Your task to perform on an android device: find snoozed emails in the gmail app Image 0: 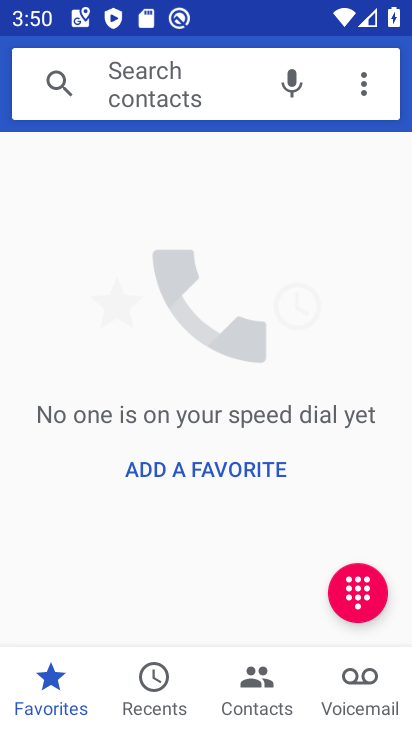
Step 0: press home button
Your task to perform on an android device: find snoozed emails in the gmail app Image 1: 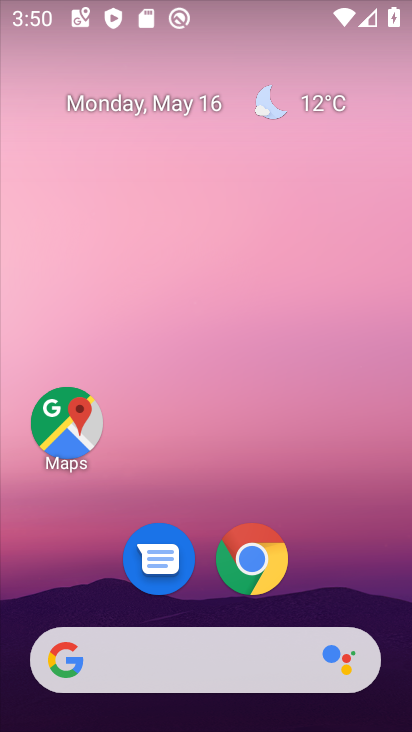
Step 1: drag from (378, 569) to (264, 245)
Your task to perform on an android device: find snoozed emails in the gmail app Image 2: 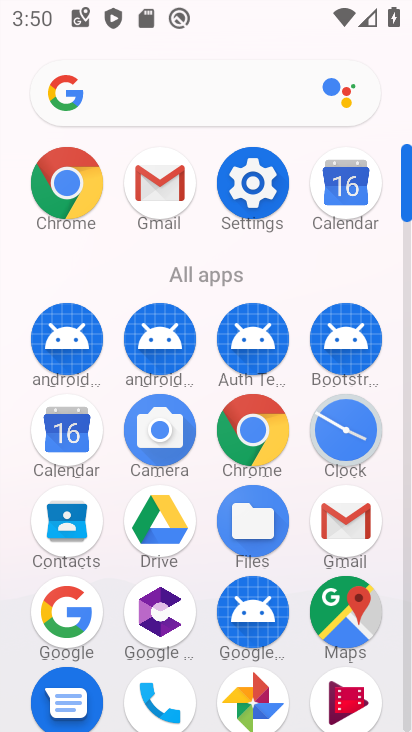
Step 2: click (327, 509)
Your task to perform on an android device: find snoozed emails in the gmail app Image 3: 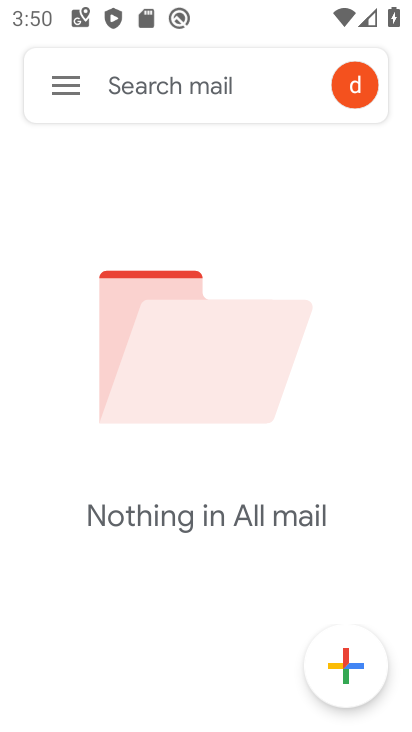
Step 3: click (59, 89)
Your task to perform on an android device: find snoozed emails in the gmail app Image 4: 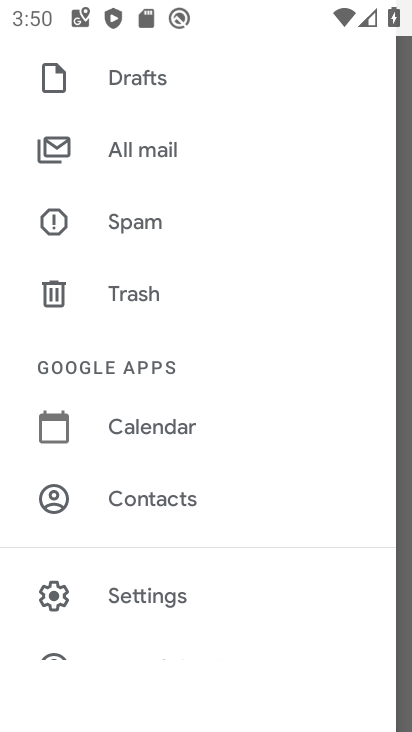
Step 4: drag from (187, 155) to (181, 411)
Your task to perform on an android device: find snoozed emails in the gmail app Image 5: 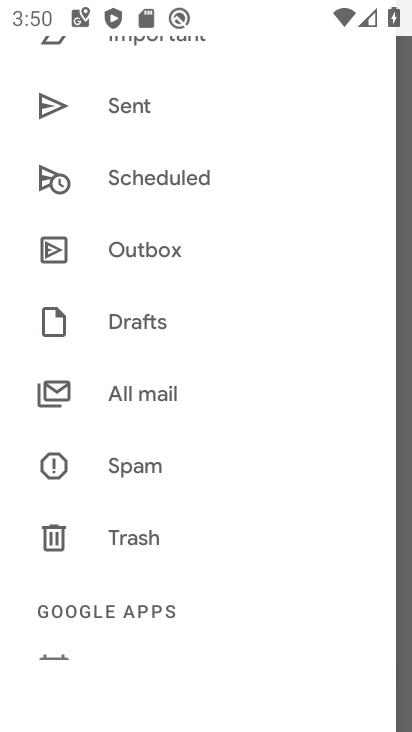
Step 5: drag from (162, 170) to (162, 440)
Your task to perform on an android device: find snoozed emails in the gmail app Image 6: 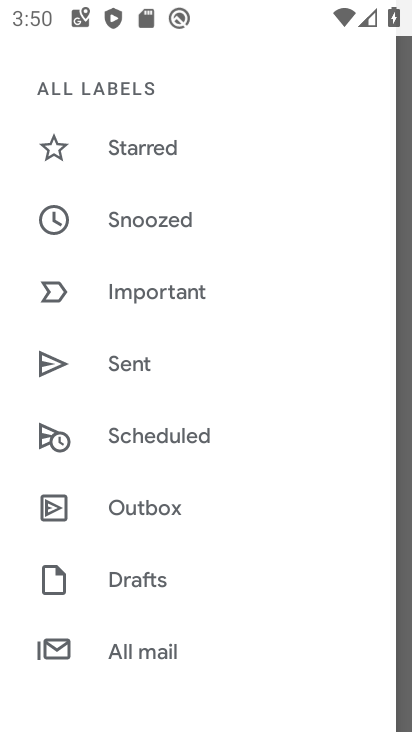
Step 6: click (188, 218)
Your task to perform on an android device: find snoozed emails in the gmail app Image 7: 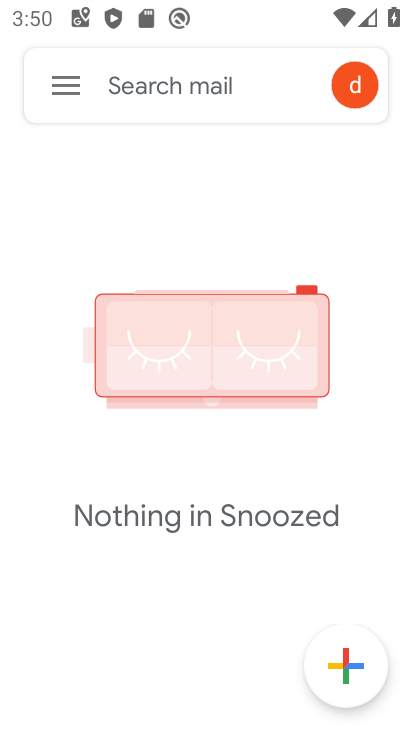
Step 7: task complete